Your task to perform on an android device: turn off translation in the chrome app Image 0: 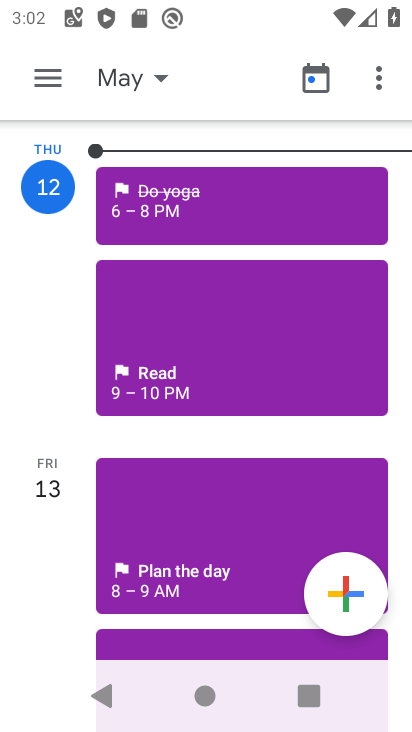
Step 0: press home button
Your task to perform on an android device: turn off translation in the chrome app Image 1: 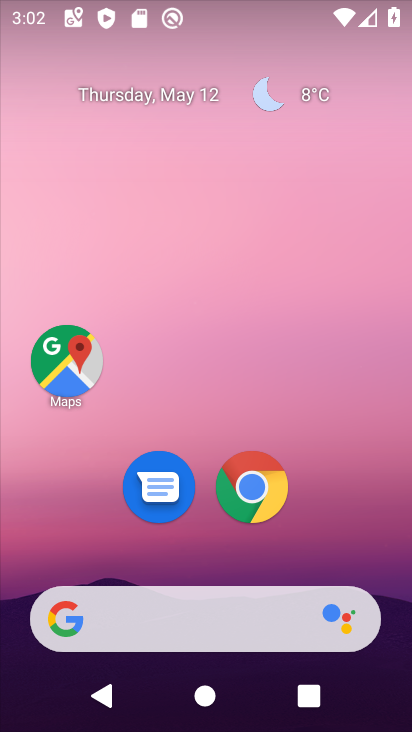
Step 1: click (265, 479)
Your task to perform on an android device: turn off translation in the chrome app Image 2: 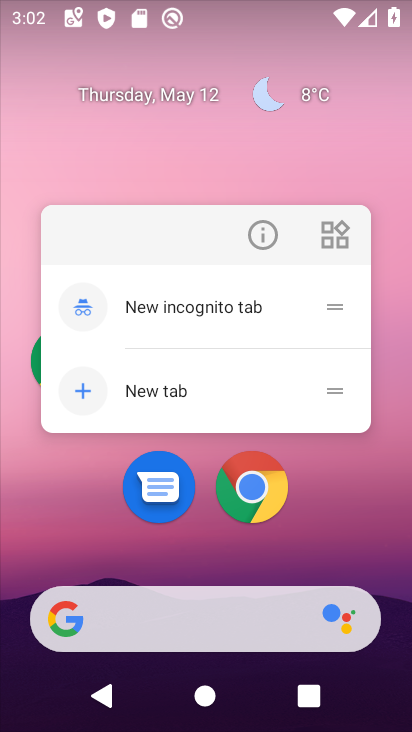
Step 2: click (259, 484)
Your task to perform on an android device: turn off translation in the chrome app Image 3: 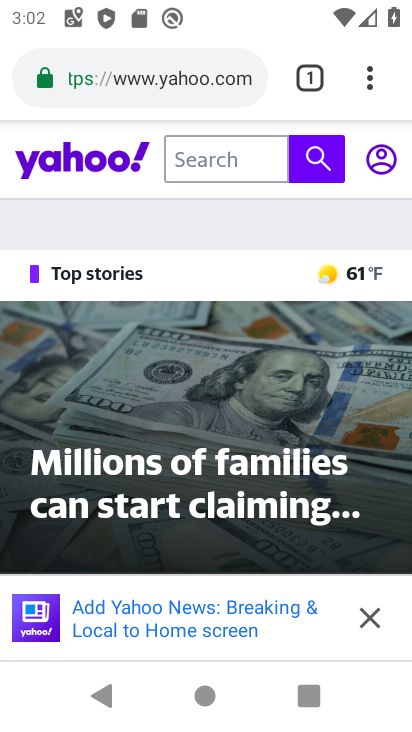
Step 3: drag from (374, 78) to (143, 539)
Your task to perform on an android device: turn off translation in the chrome app Image 4: 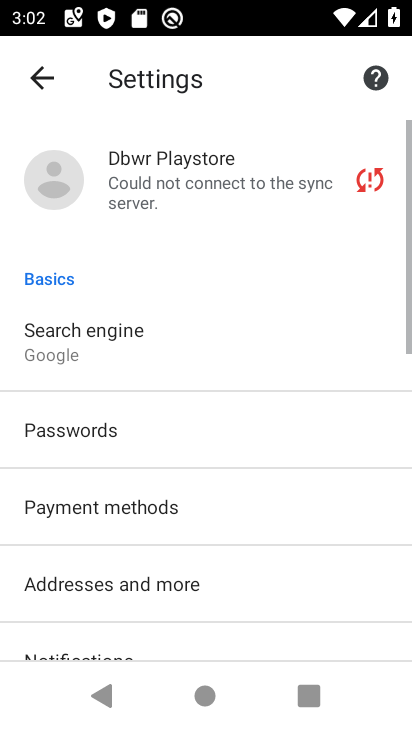
Step 4: drag from (191, 543) to (308, 174)
Your task to perform on an android device: turn off translation in the chrome app Image 5: 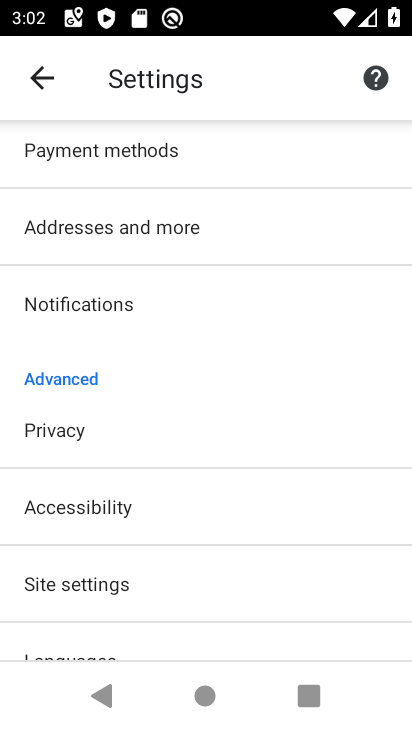
Step 5: drag from (130, 575) to (229, 316)
Your task to perform on an android device: turn off translation in the chrome app Image 6: 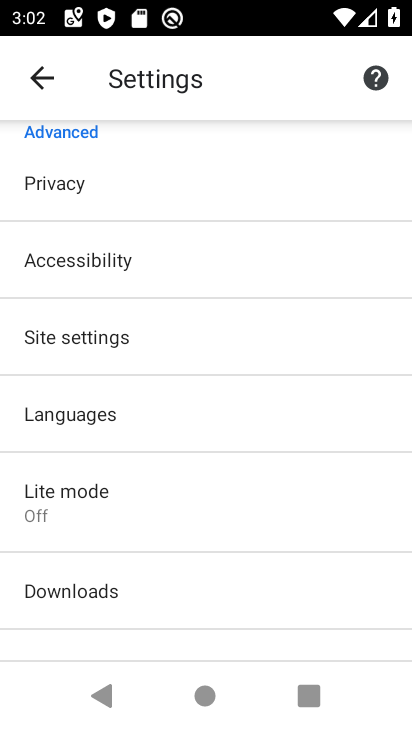
Step 6: click (120, 416)
Your task to perform on an android device: turn off translation in the chrome app Image 7: 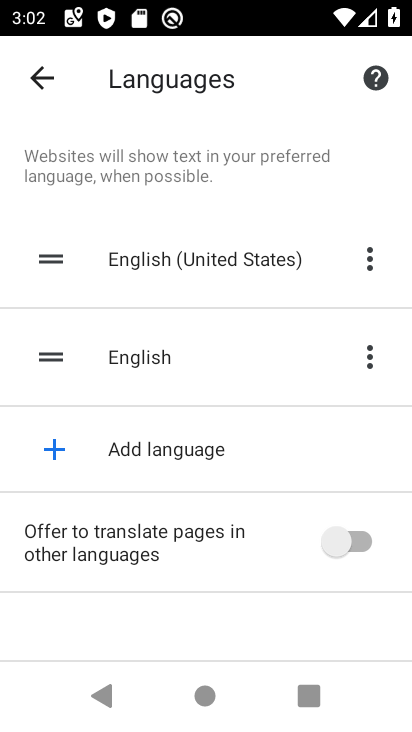
Step 7: click (324, 536)
Your task to perform on an android device: turn off translation in the chrome app Image 8: 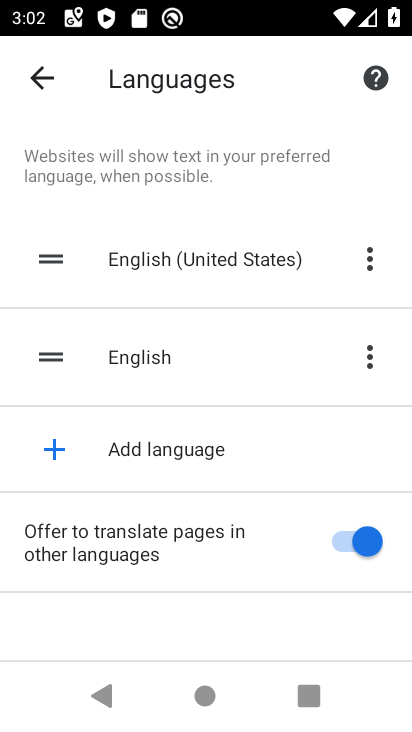
Step 8: task complete